Your task to perform on an android device: find photos in the google photos app Image 0: 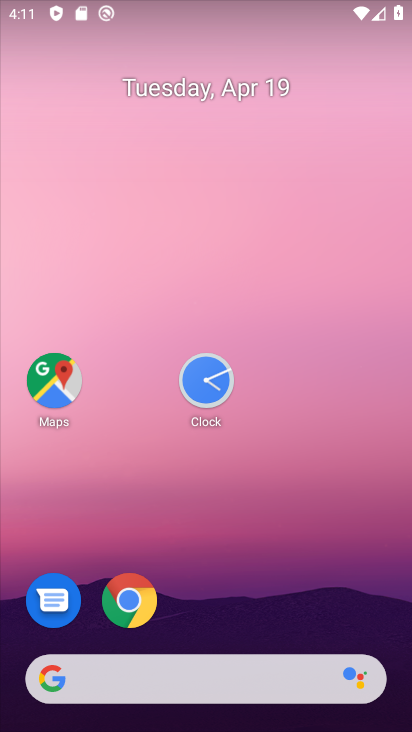
Step 0: drag from (245, 663) to (196, 179)
Your task to perform on an android device: find photos in the google photos app Image 1: 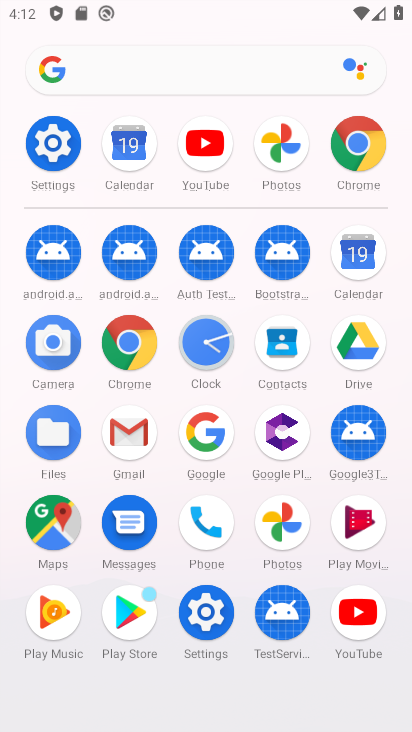
Step 1: click (282, 530)
Your task to perform on an android device: find photos in the google photos app Image 2: 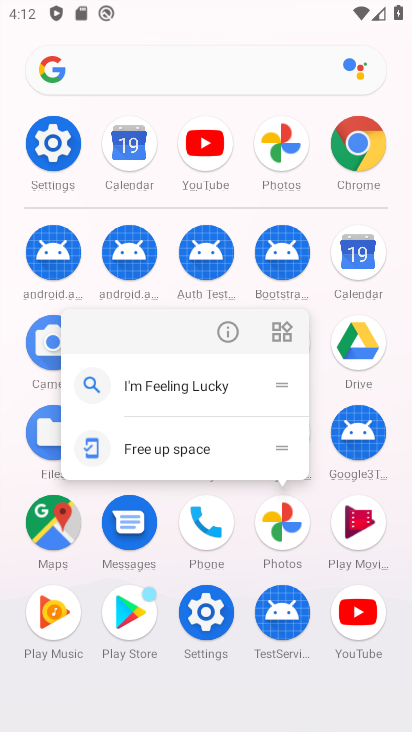
Step 2: click (282, 529)
Your task to perform on an android device: find photos in the google photos app Image 3: 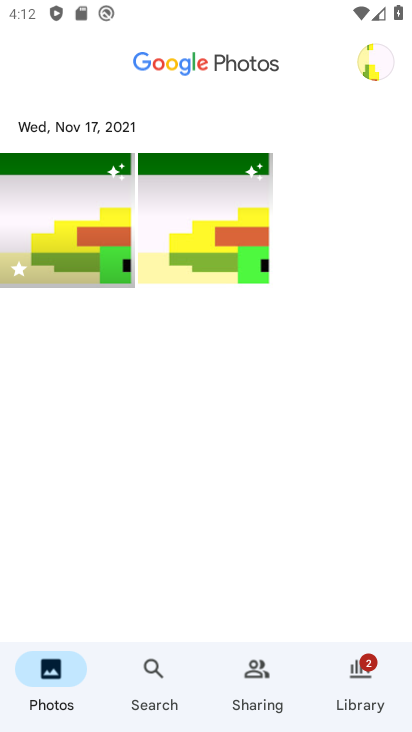
Step 3: click (279, 513)
Your task to perform on an android device: find photos in the google photos app Image 4: 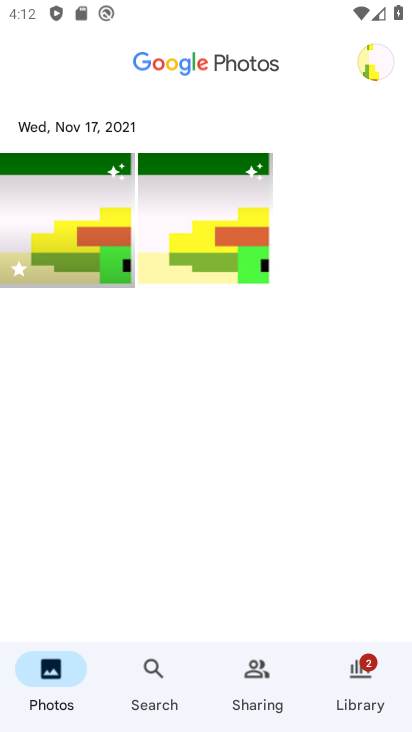
Step 4: task complete